Your task to perform on an android device: open app "HBO Max: Stream TV & Movies" (install if not already installed) Image 0: 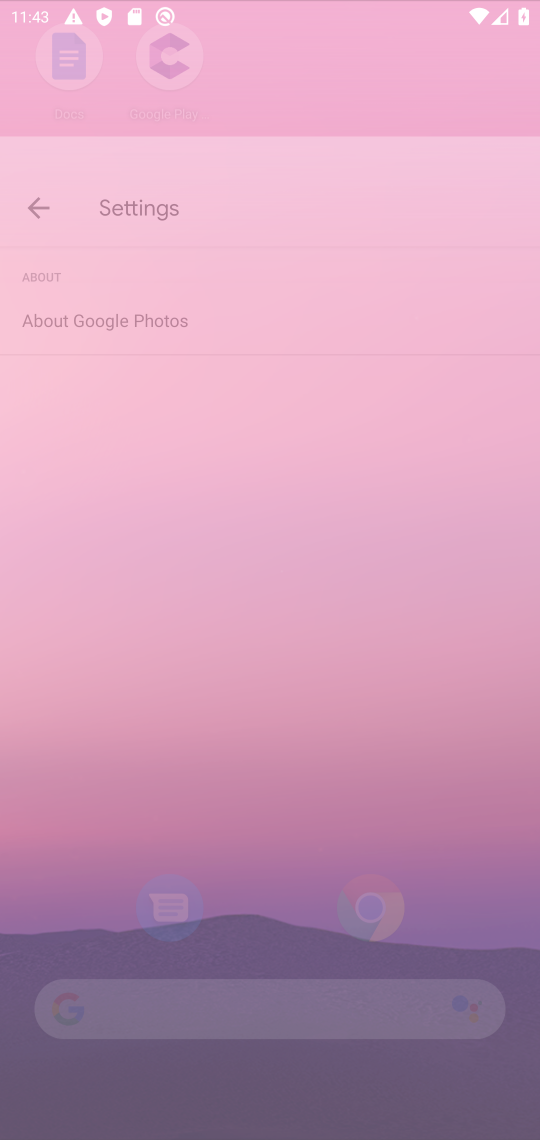
Step 0: press home button
Your task to perform on an android device: open app "HBO Max: Stream TV & Movies" (install if not already installed) Image 1: 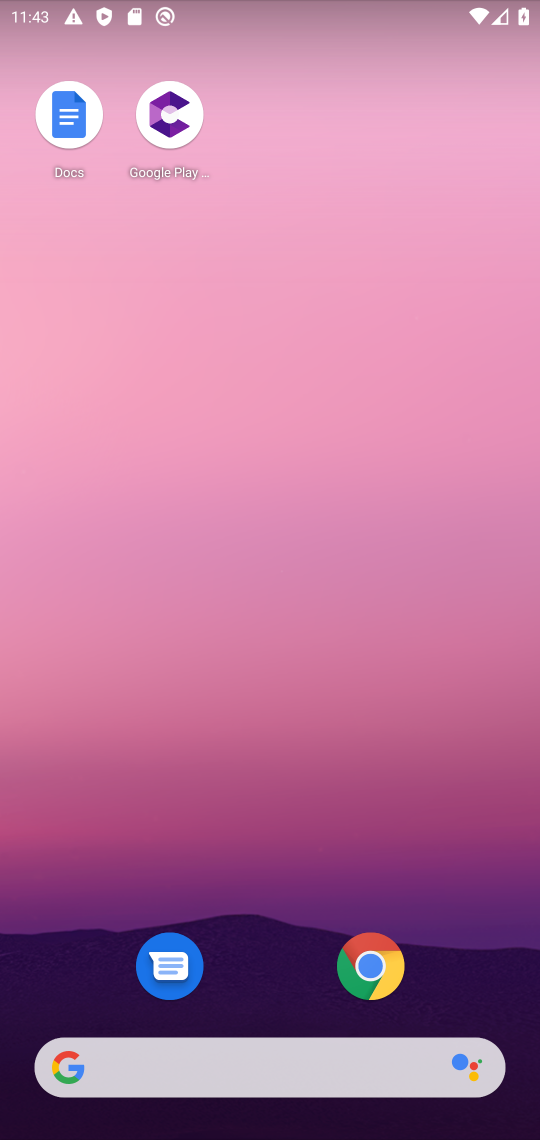
Step 1: drag from (438, 421) to (438, 92)
Your task to perform on an android device: open app "HBO Max: Stream TV & Movies" (install if not already installed) Image 2: 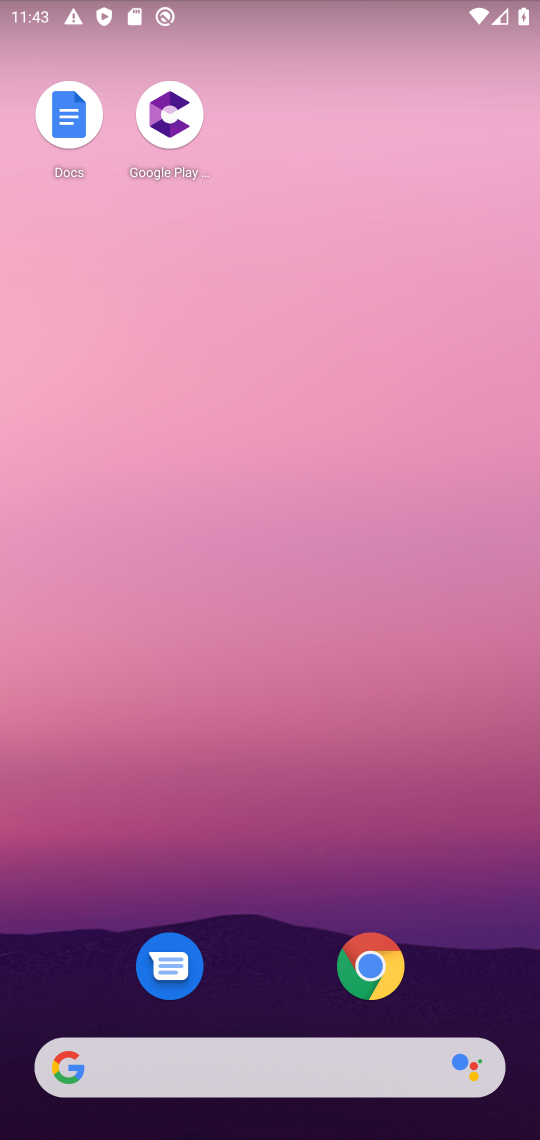
Step 2: drag from (448, 882) to (451, 85)
Your task to perform on an android device: open app "HBO Max: Stream TV & Movies" (install if not already installed) Image 3: 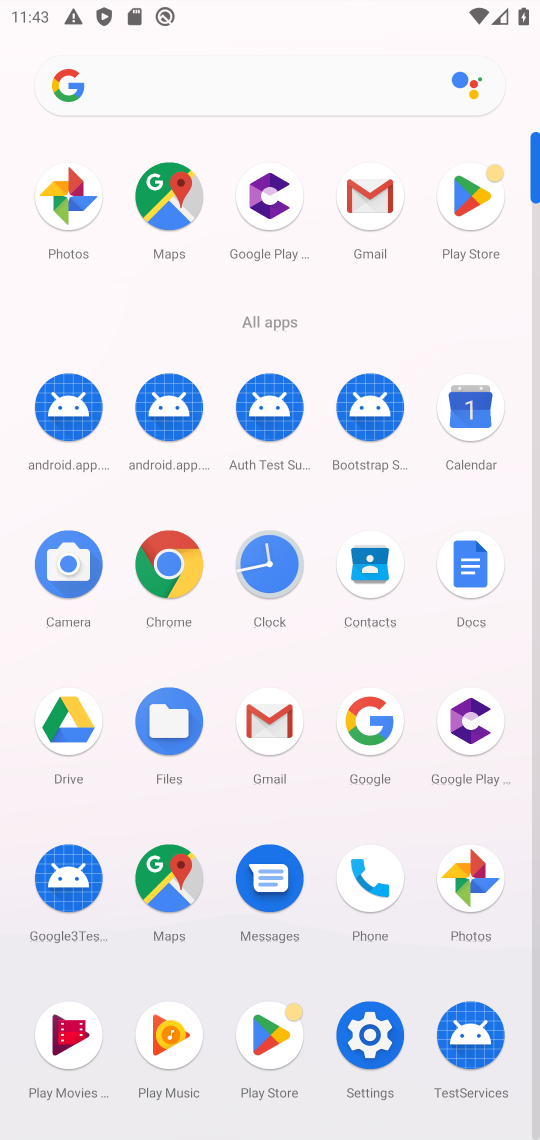
Step 3: click (269, 1047)
Your task to perform on an android device: open app "HBO Max: Stream TV & Movies" (install if not already installed) Image 4: 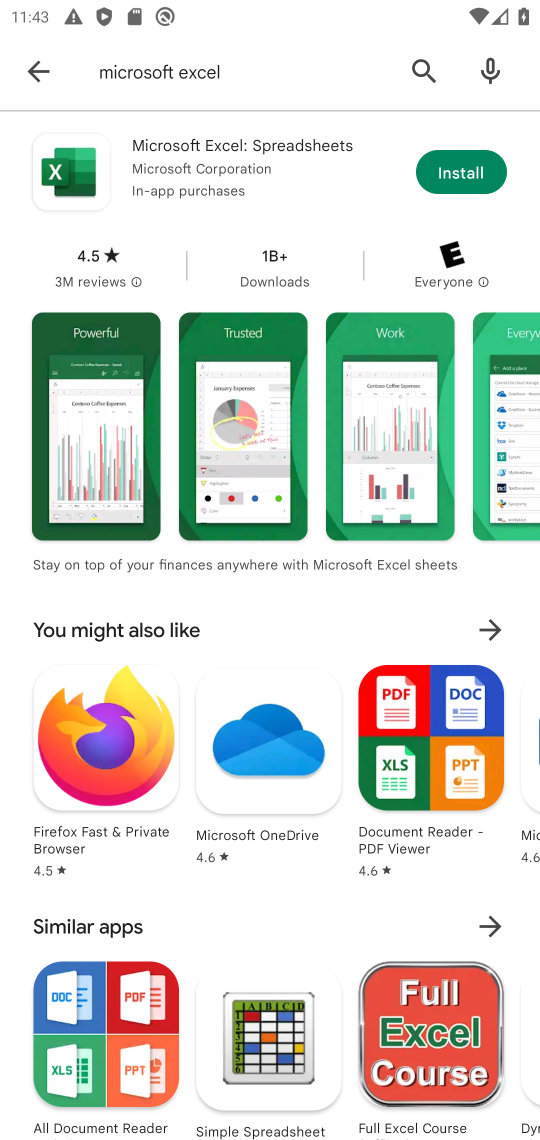
Step 4: click (427, 57)
Your task to perform on an android device: open app "HBO Max: Stream TV & Movies" (install if not already installed) Image 5: 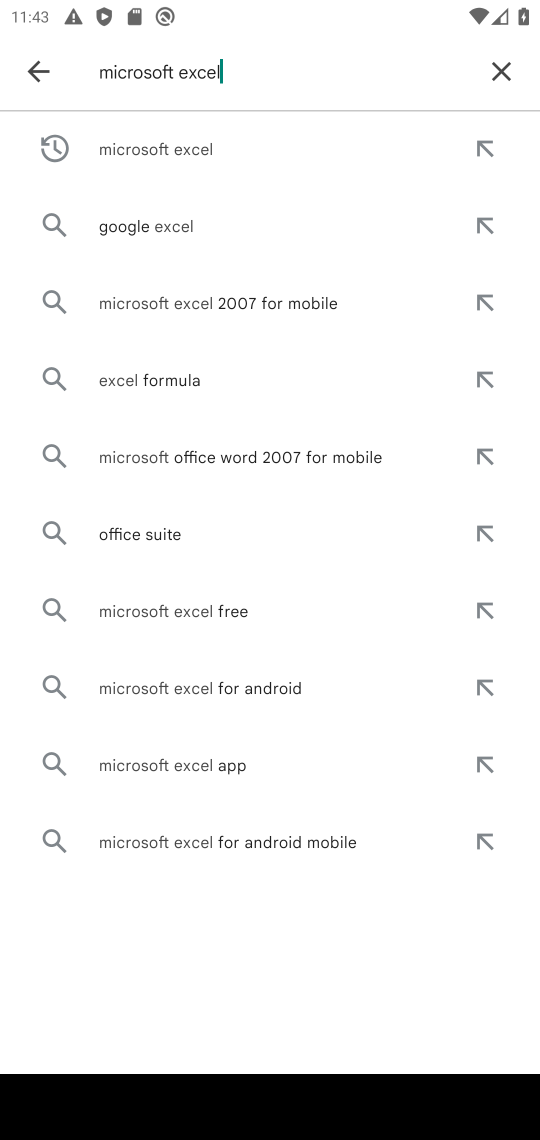
Step 5: click (485, 71)
Your task to perform on an android device: open app "HBO Max: Stream TV & Movies" (install if not already installed) Image 6: 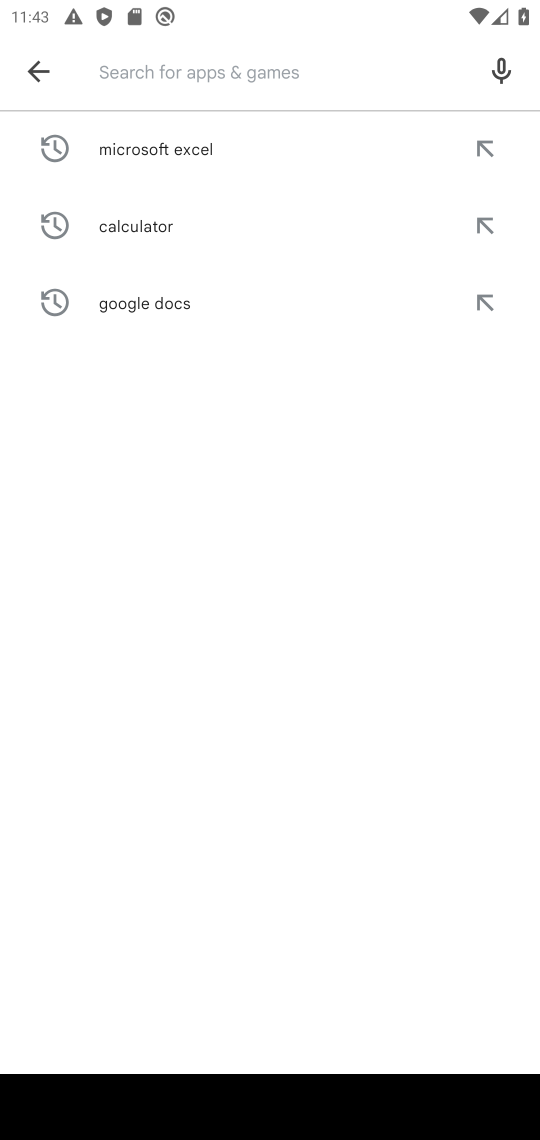
Step 6: click (350, 85)
Your task to perform on an android device: open app "HBO Max: Stream TV & Movies" (install if not already installed) Image 7: 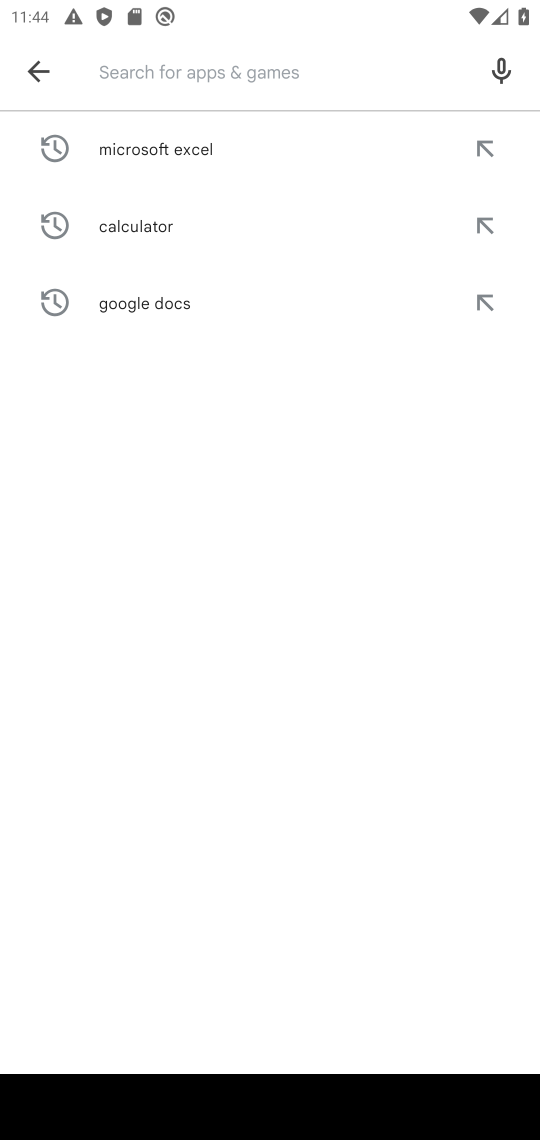
Step 7: type "HBO Max: Stream TV & Movies"
Your task to perform on an android device: open app "HBO Max: Stream TV & Movies" (install if not already installed) Image 8: 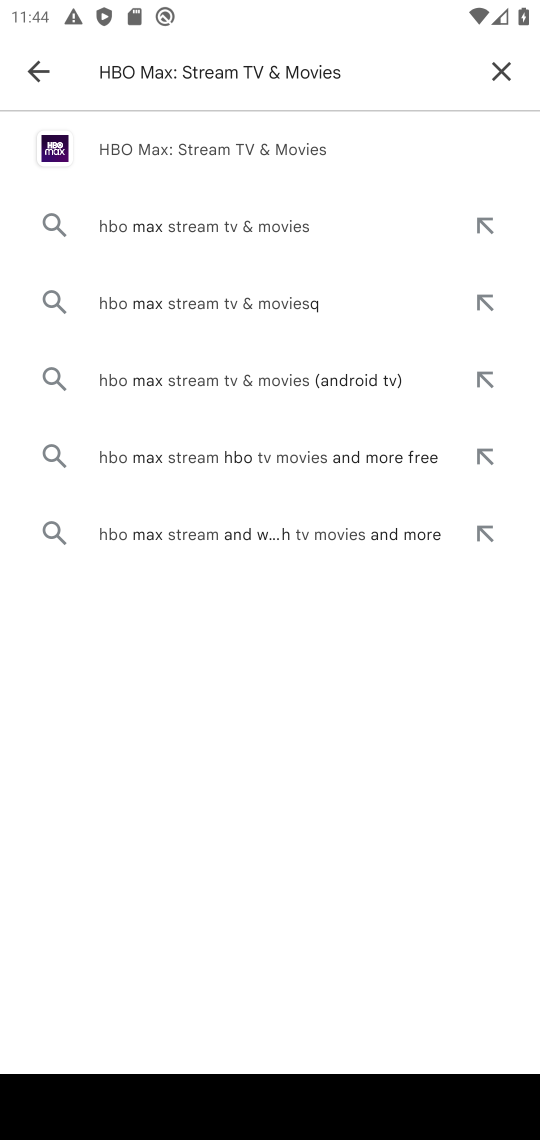
Step 8: click (256, 139)
Your task to perform on an android device: open app "HBO Max: Stream TV & Movies" (install if not already installed) Image 9: 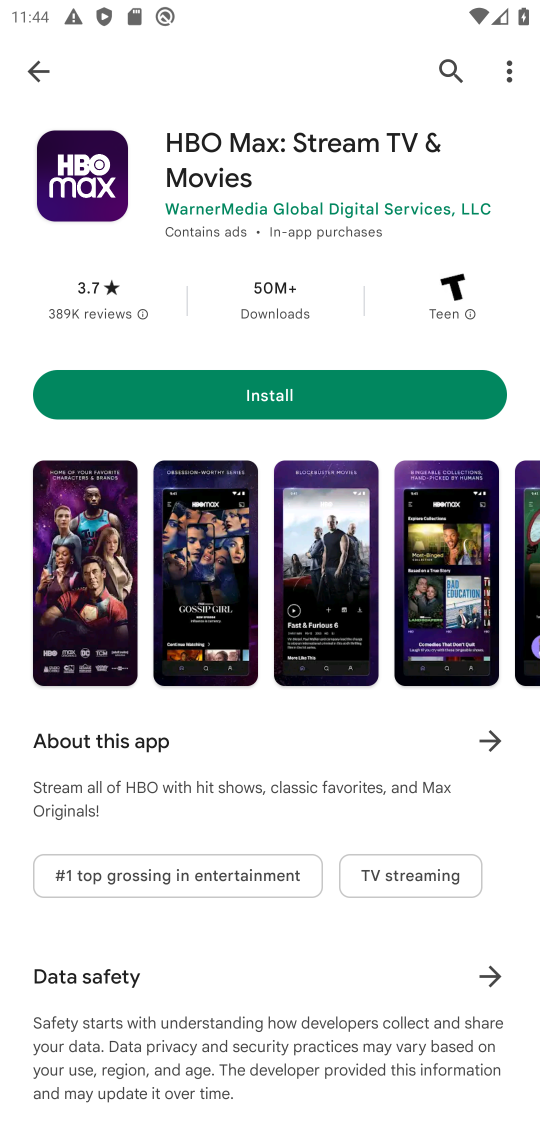
Step 9: click (329, 399)
Your task to perform on an android device: open app "HBO Max: Stream TV & Movies" (install if not already installed) Image 10: 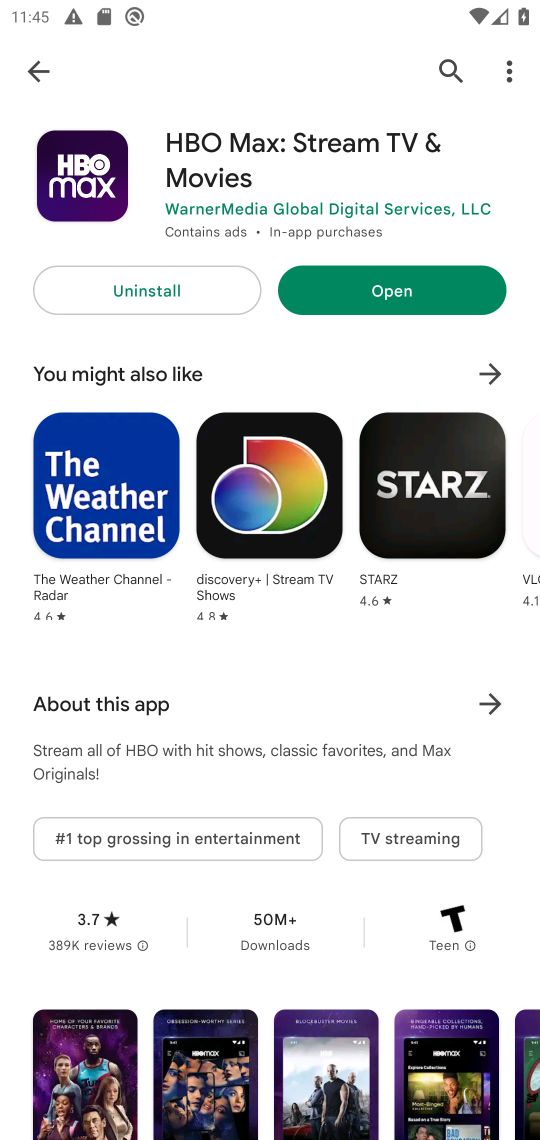
Step 10: click (403, 290)
Your task to perform on an android device: open app "HBO Max: Stream TV & Movies" (install if not already installed) Image 11: 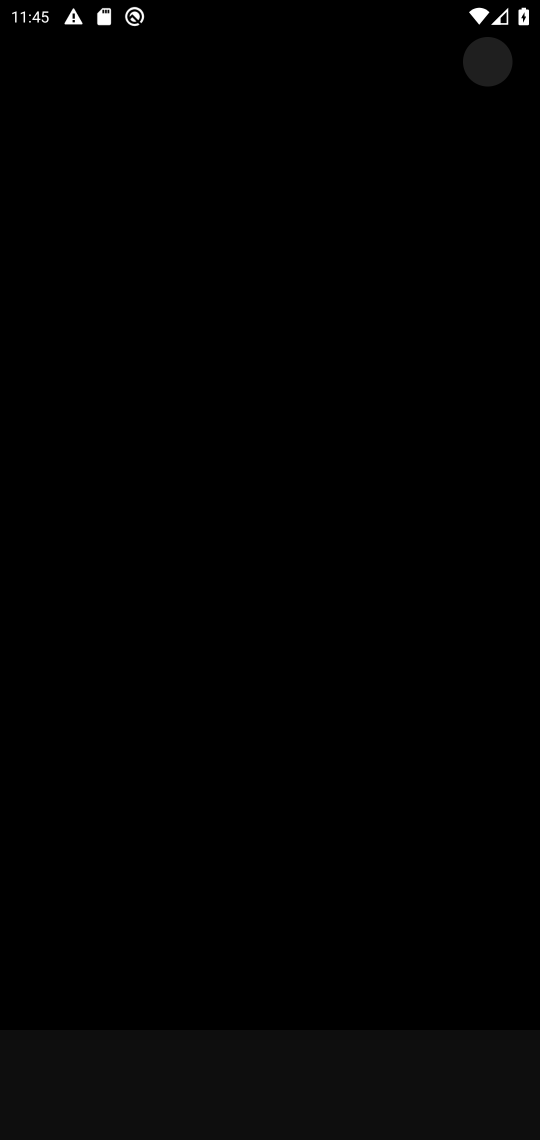
Step 11: task complete